Your task to perform on an android device: clear all cookies in the chrome app Image 0: 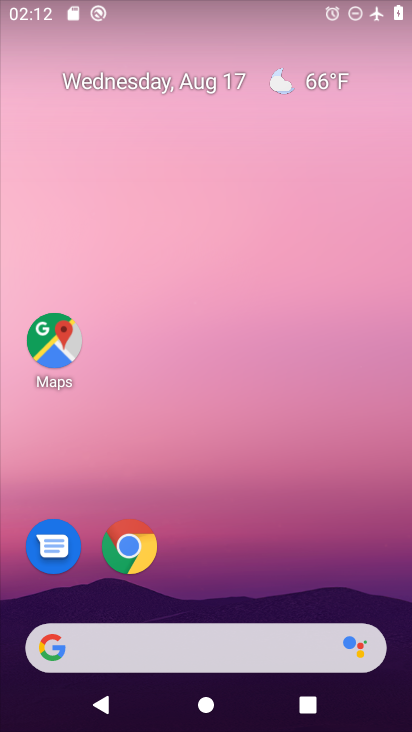
Step 0: click (124, 558)
Your task to perform on an android device: clear all cookies in the chrome app Image 1: 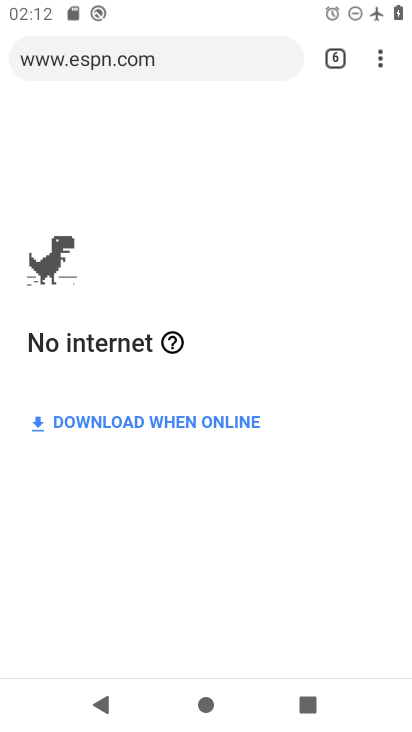
Step 1: click (382, 57)
Your task to perform on an android device: clear all cookies in the chrome app Image 2: 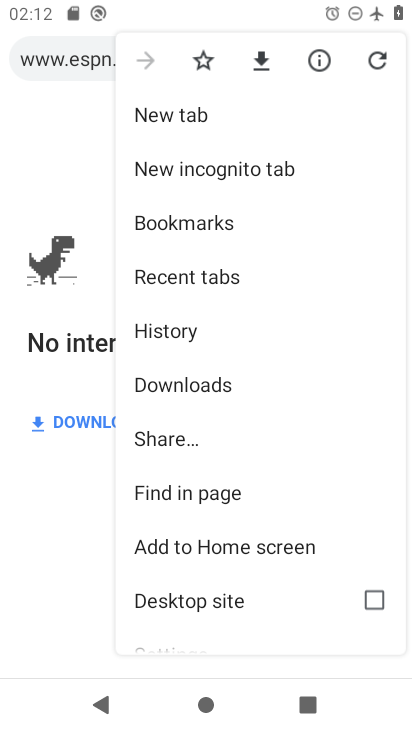
Step 2: drag from (207, 558) to (246, 80)
Your task to perform on an android device: clear all cookies in the chrome app Image 3: 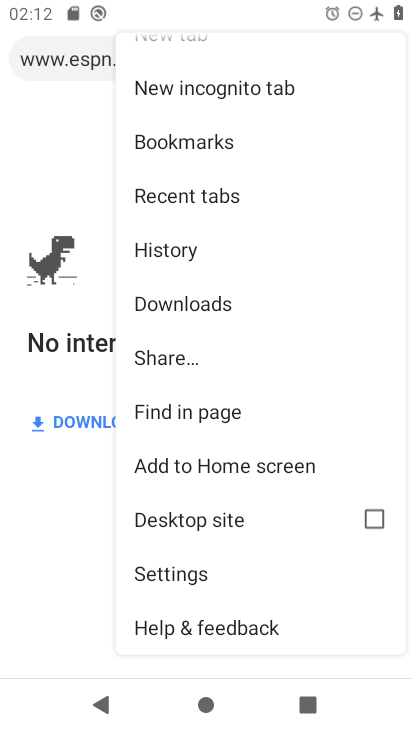
Step 3: click (167, 567)
Your task to perform on an android device: clear all cookies in the chrome app Image 4: 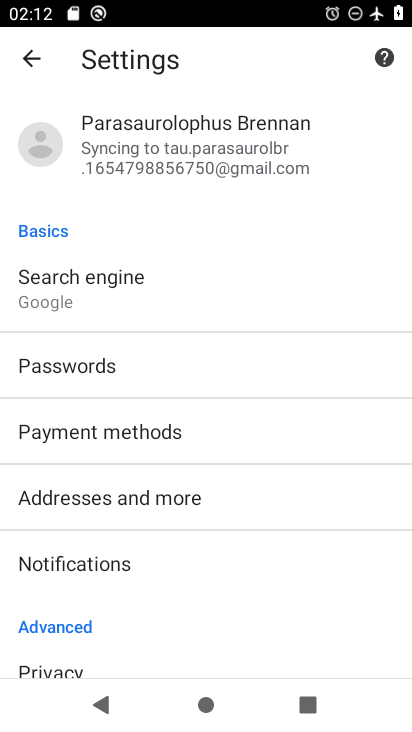
Step 4: drag from (247, 575) to (226, 281)
Your task to perform on an android device: clear all cookies in the chrome app Image 5: 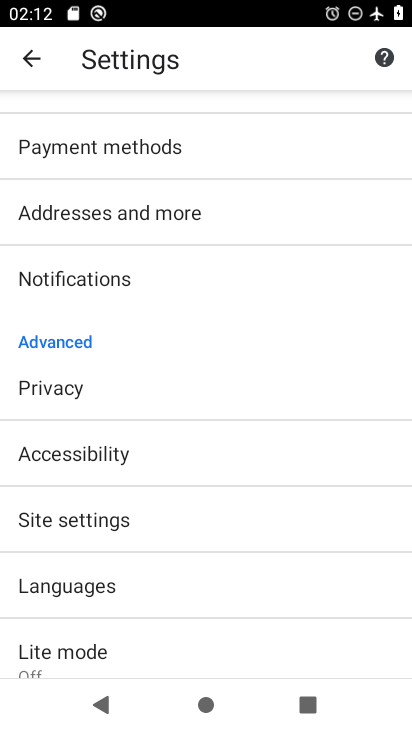
Step 5: click (50, 383)
Your task to perform on an android device: clear all cookies in the chrome app Image 6: 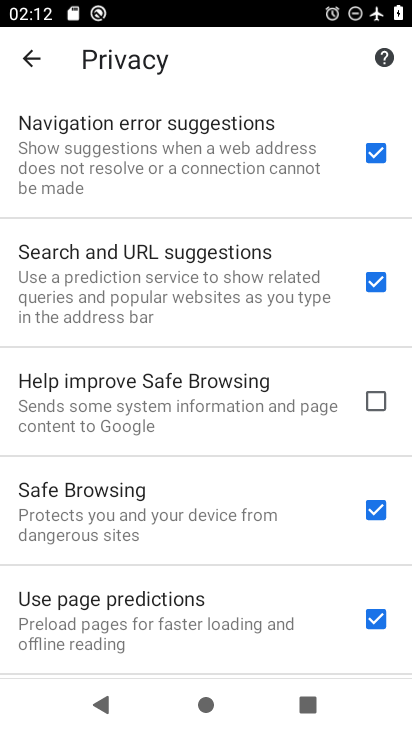
Step 6: drag from (177, 579) to (146, 107)
Your task to perform on an android device: clear all cookies in the chrome app Image 7: 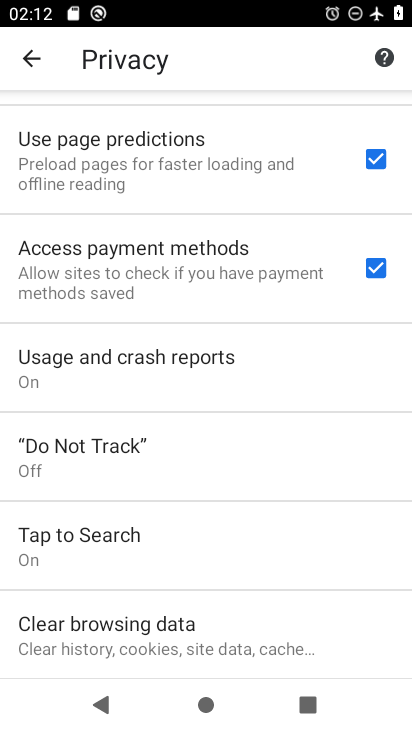
Step 7: click (156, 622)
Your task to perform on an android device: clear all cookies in the chrome app Image 8: 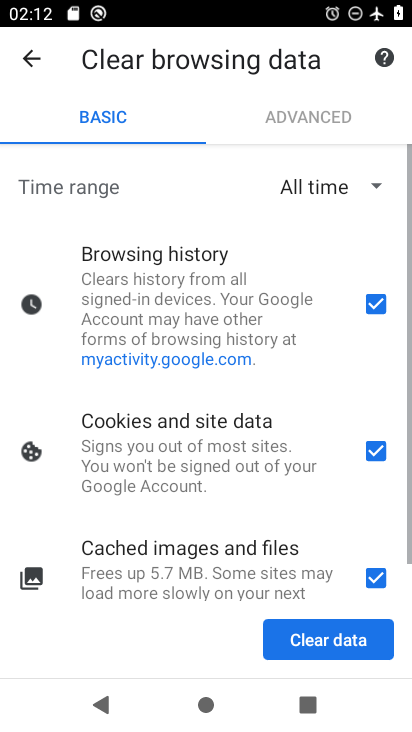
Step 8: click (370, 306)
Your task to perform on an android device: clear all cookies in the chrome app Image 9: 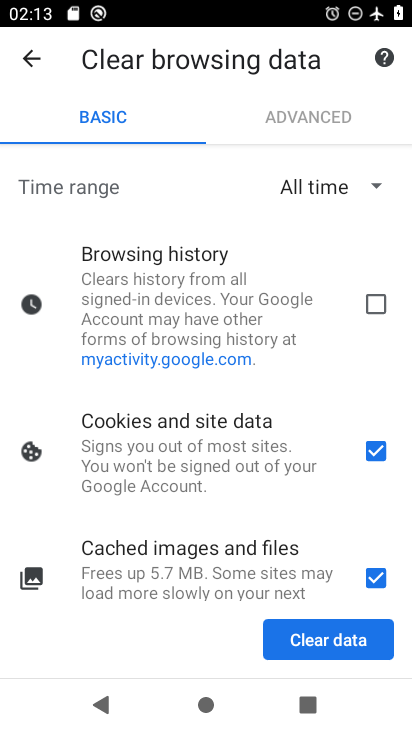
Step 9: click (372, 574)
Your task to perform on an android device: clear all cookies in the chrome app Image 10: 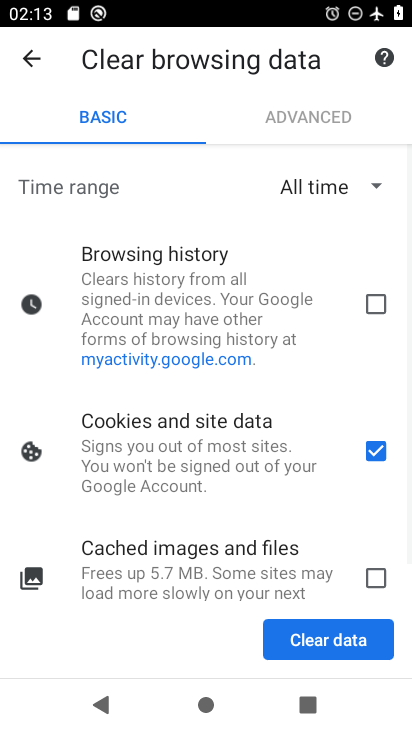
Step 10: click (333, 642)
Your task to perform on an android device: clear all cookies in the chrome app Image 11: 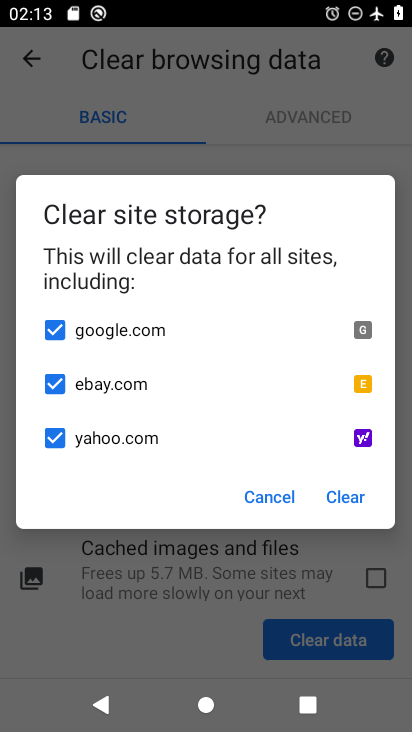
Step 11: click (338, 496)
Your task to perform on an android device: clear all cookies in the chrome app Image 12: 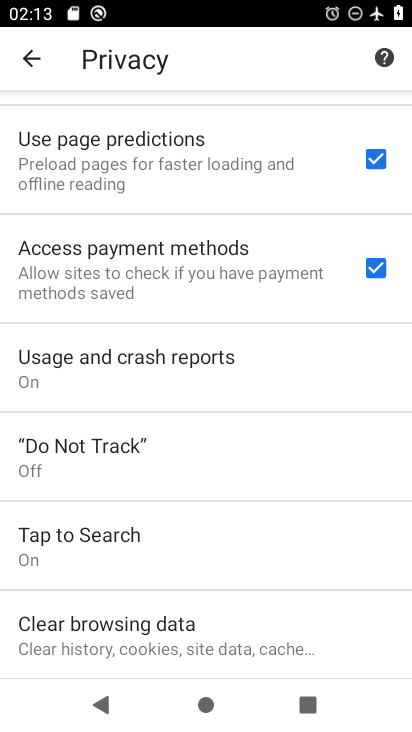
Step 12: task complete